Your task to perform on an android device: uninstall "ColorNote Notepad Notes" Image 0: 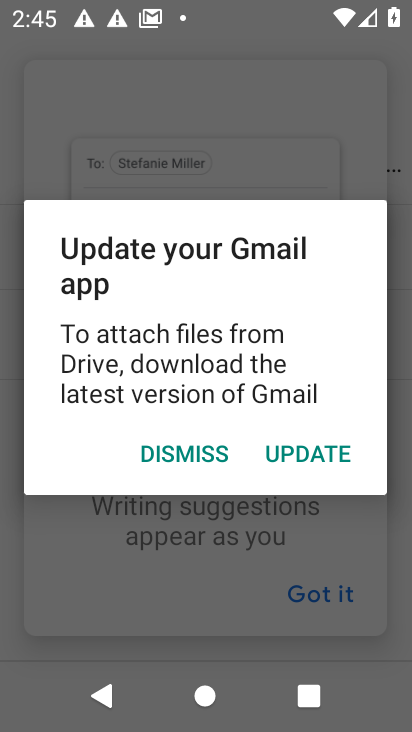
Step 0: press home button
Your task to perform on an android device: uninstall "ColorNote Notepad Notes" Image 1: 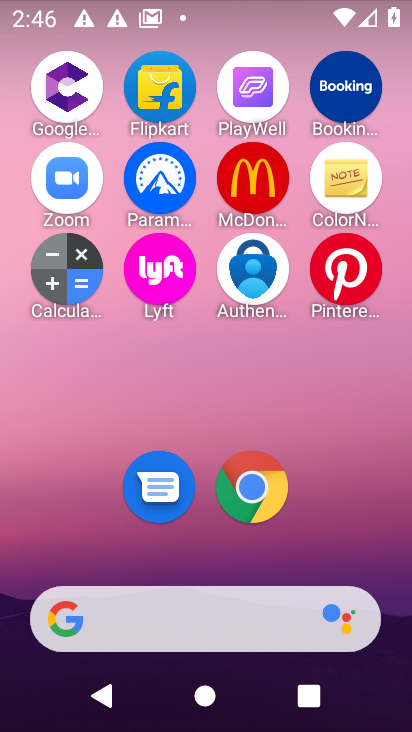
Step 1: drag from (172, 617) to (229, 21)
Your task to perform on an android device: uninstall "ColorNote Notepad Notes" Image 2: 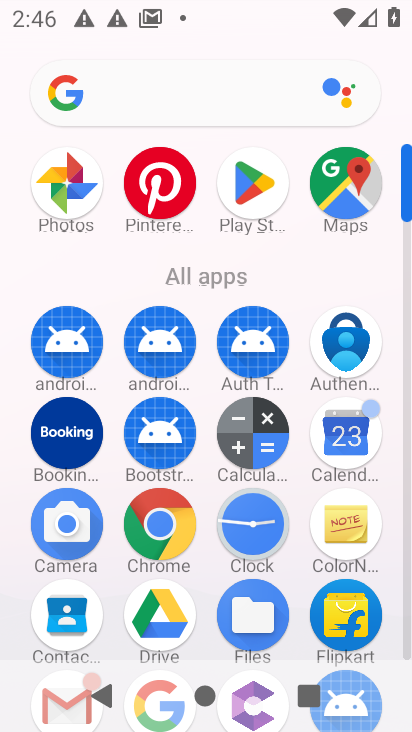
Step 2: click (260, 176)
Your task to perform on an android device: uninstall "ColorNote Notepad Notes" Image 3: 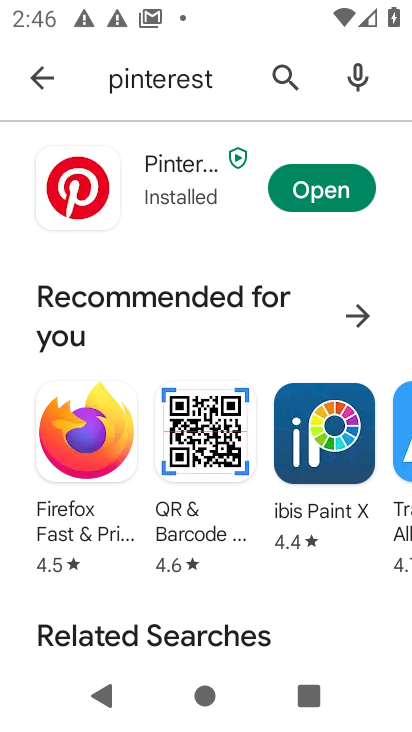
Step 3: press back button
Your task to perform on an android device: uninstall "ColorNote Notepad Notes" Image 4: 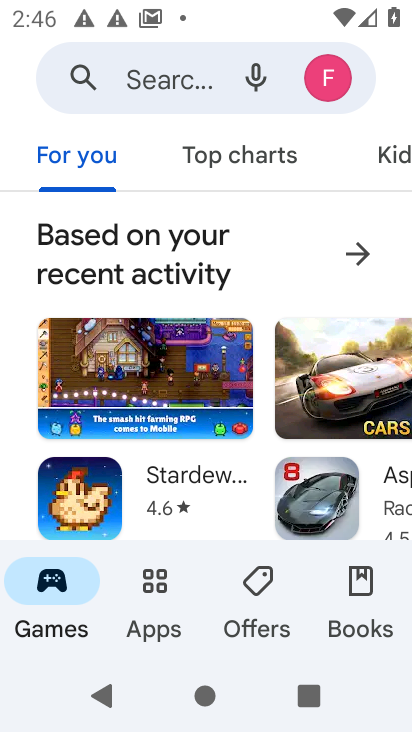
Step 4: click (131, 82)
Your task to perform on an android device: uninstall "ColorNote Notepad Notes" Image 5: 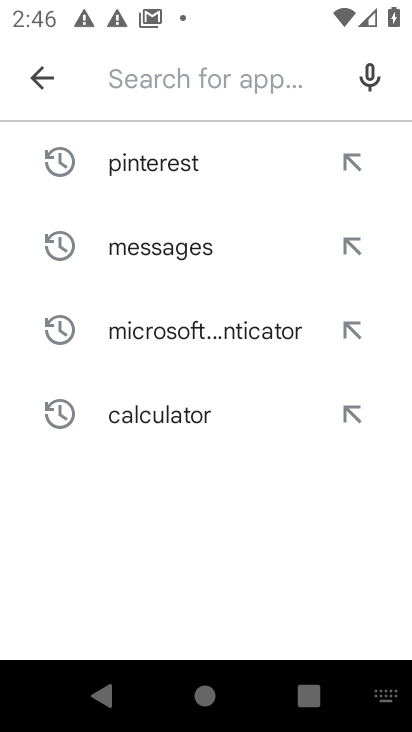
Step 5: type "ColorNote Notepad Notes"
Your task to perform on an android device: uninstall "ColorNote Notepad Notes" Image 6: 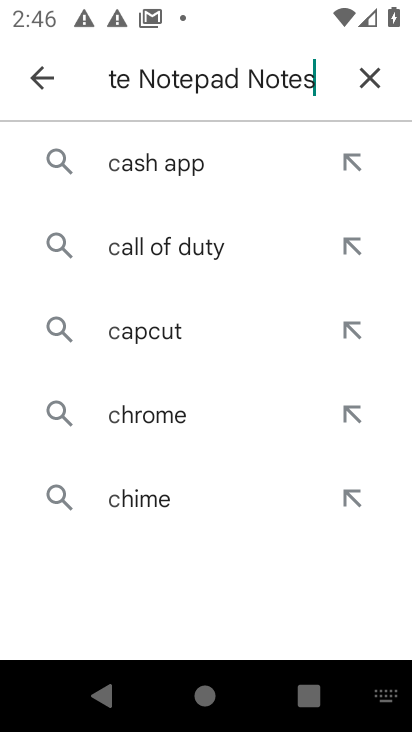
Step 6: type ""
Your task to perform on an android device: uninstall "ColorNote Notepad Notes" Image 7: 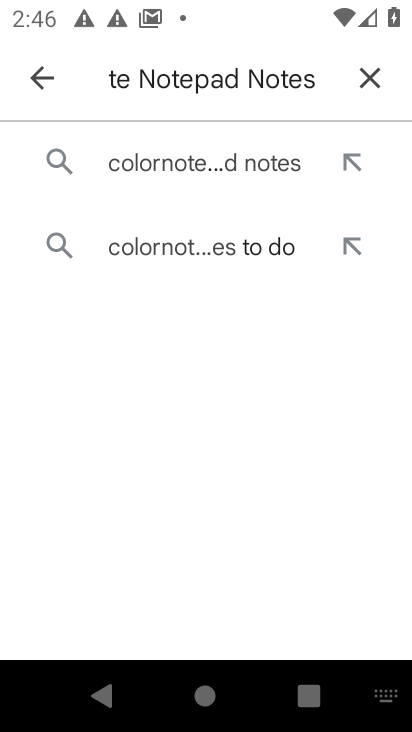
Step 7: click (158, 161)
Your task to perform on an android device: uninstall "ColorNote Notepad Notes" Image 8: 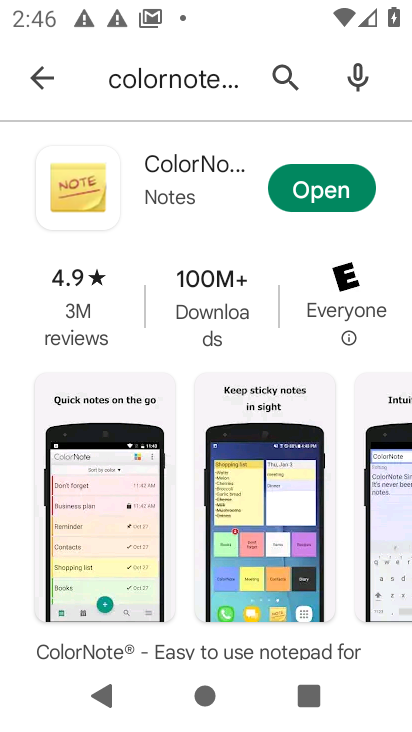
Step 8: click (194, 158)
Your task to perform on an android device: uninstall "ColorNote Notepad Notes" Image 9: 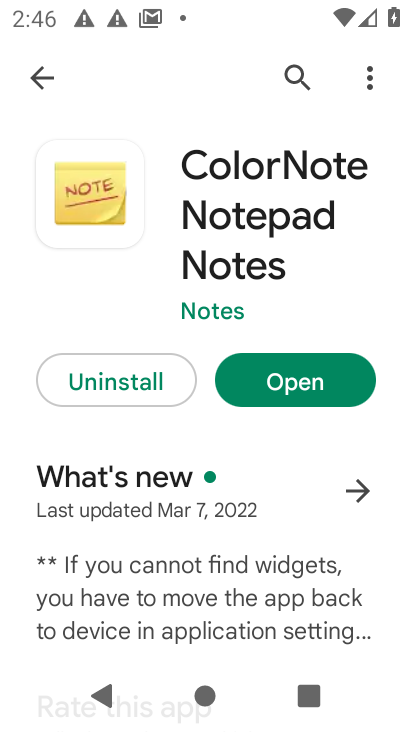
Step 9: click (127, 388)
Your task to perform on an android device: uninstall "ColorNote Notepad Notes" Image 10: 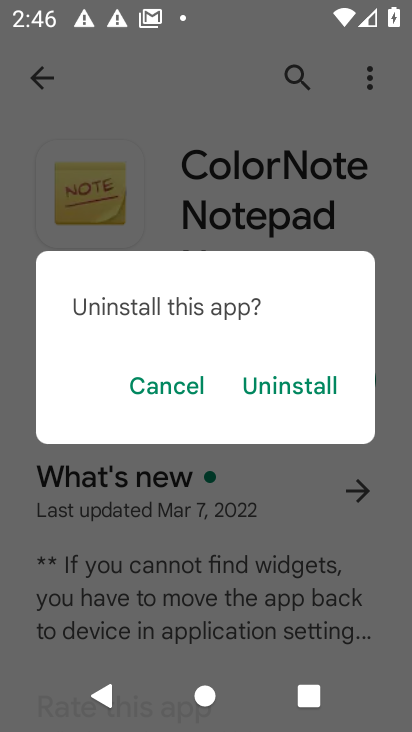
Step 10: click (313, 393)
Your task to perform on an android device: uninstall "ColorNote Notepad Notes" Image 11: 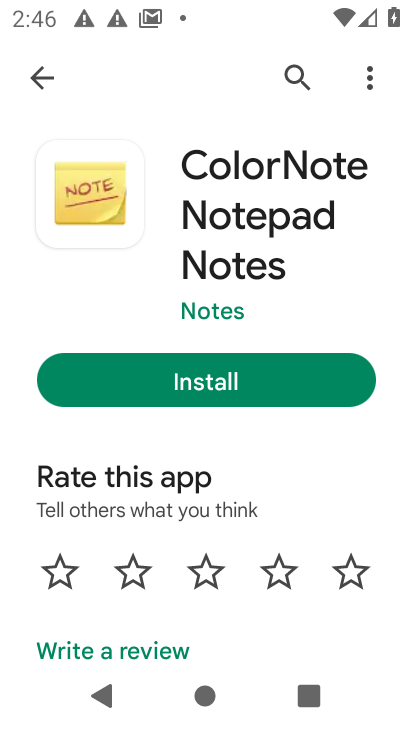
Step 11: task complete